Your task to perform on an android device: Show me the alarms in the clock app Image 0: 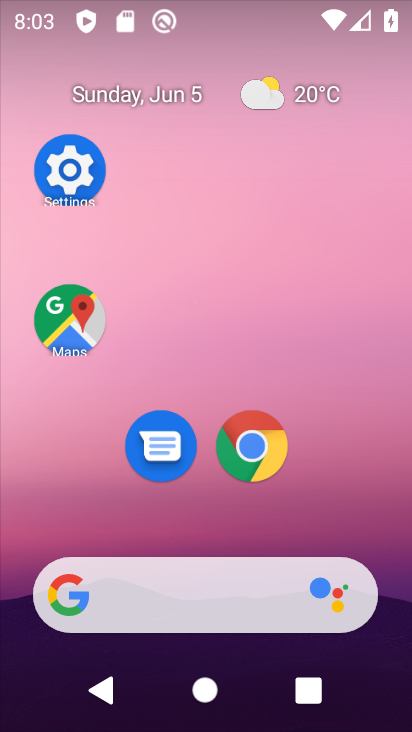
Step 0: drag from (340, 488) to (326, 185)
Your task to perform on an android device: Show me the alarms in the clock app Image 1: 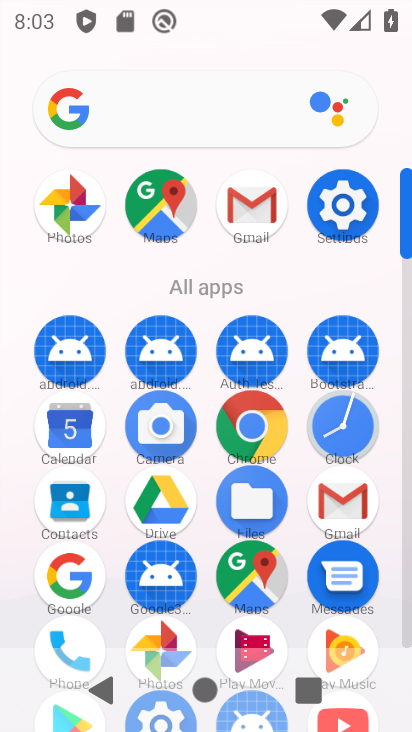
Step 1: drag from (341, 422) to (177, 202)
Your task to perform on an android device: Show me the alarms in the clock app Image 2: 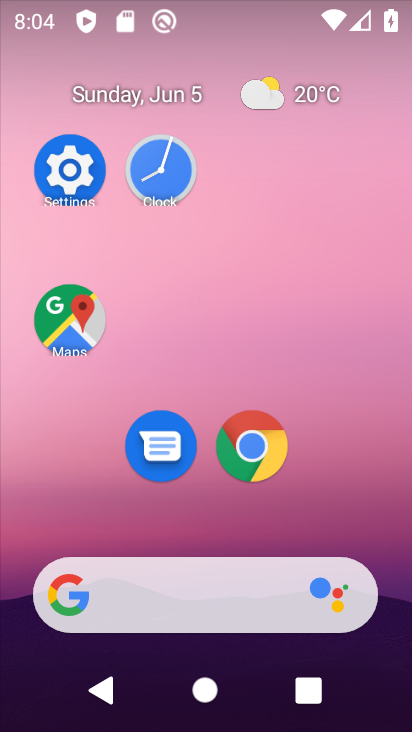
Step 2: click (161, 179)
Your task to perform on an android device: Show me the alarms in the clock app Image 3: 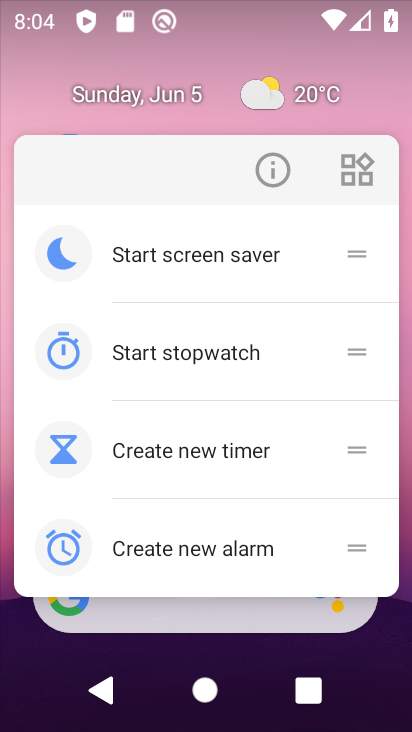
Step 3: click (375, 82)
Your task to perform on an android device: Show me the alarms in the clock app Image 4: 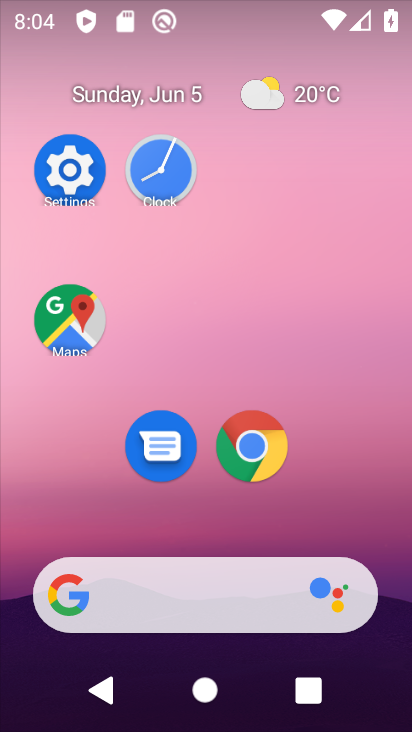
Step 4: click (156, 175)
Your task to perform on an android device: Show me the alarms in the clock app Image 5: 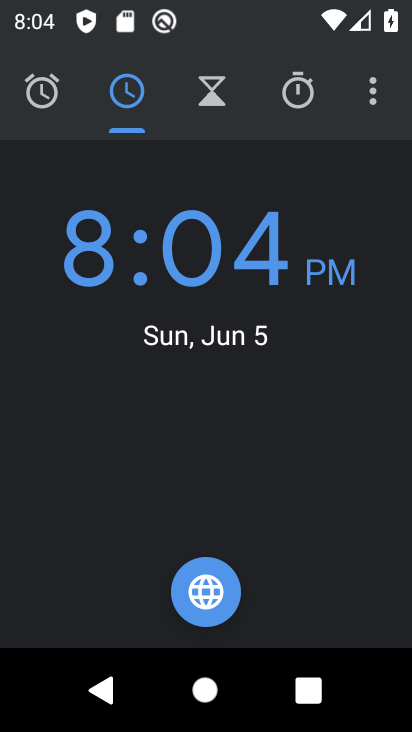
Step 5: click (58, 107)
Your task to perform on an android device: Show me the alarms in the clock app Image 6: 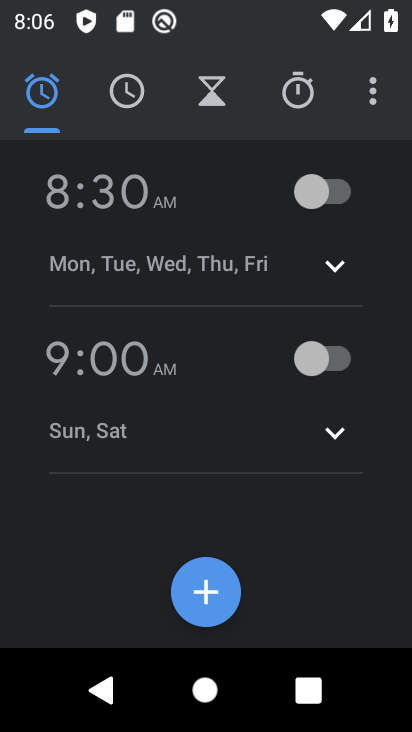
Step 6: task complete